Your task to perform on an android device: remove spam from my inbox in the gmail app Image 0: 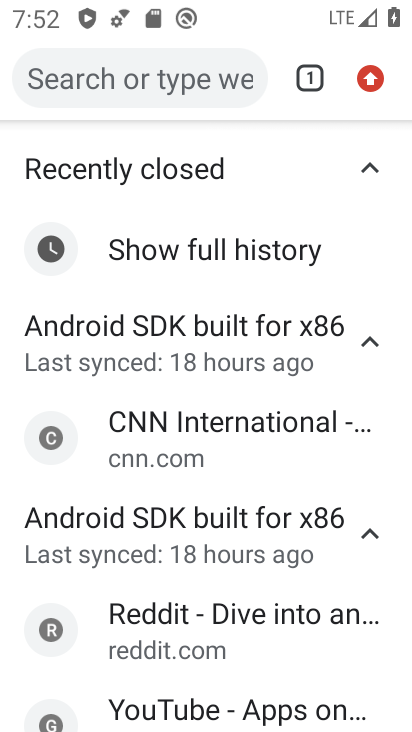
Step 0: press home button
Your task to perform on an android device: remove spam from my inbox in the gmail app Image 1: 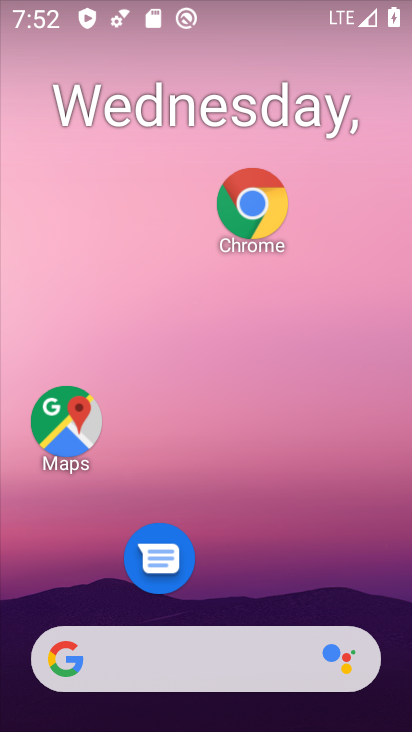
Step 1: drag from (233, 592) to (225, 152)
Your task to perform on an android device: remove spam from my inbox in the gmail app Image 2: 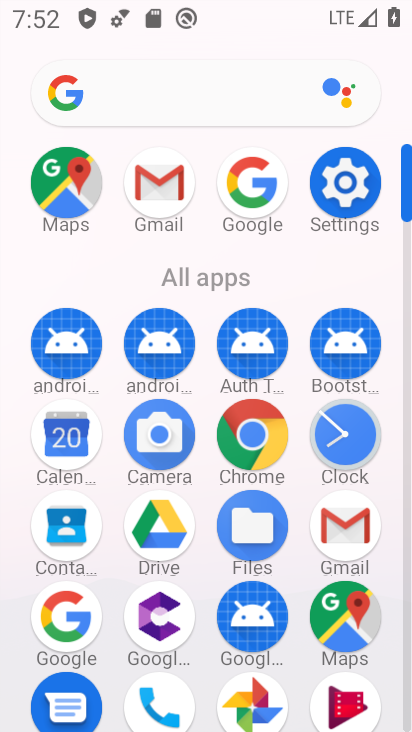
Step 2: click (354, 522)
Your task to perform on an android device: remove spam from my inbox in the gmail app Image 3: 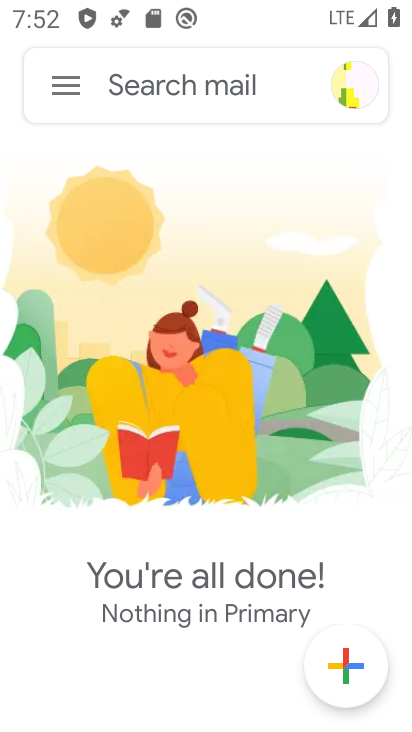
Step 3: click (60, 86)
Your task to perform on an android device: remove spam from my inbox in the gmail app Image 4: 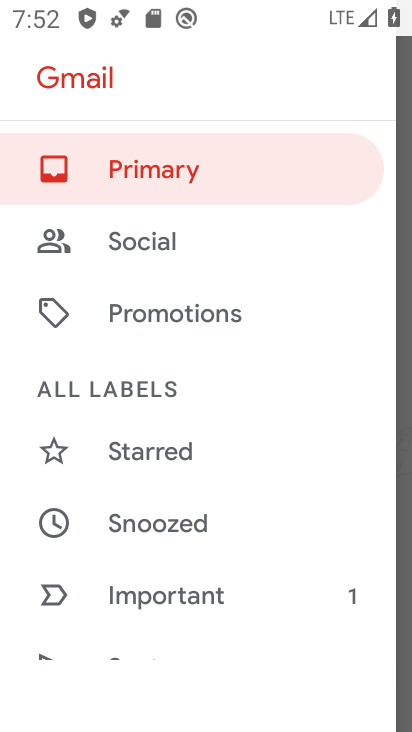
Step 4: drag from (197, 546) to (193, 107)
Your task to perform on an android device: remove spam from my inbox in the gmail app Image 5: 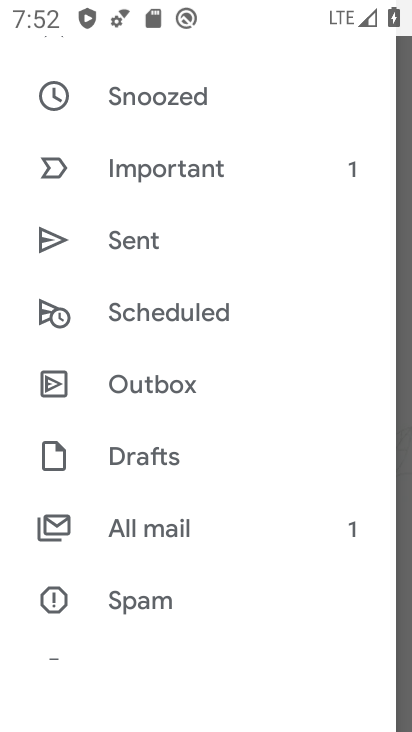
Step 5: drag from (179, 605) to (202, 242)
Your task to perform on an android device: remove spam from my inbox in the gmail app Image 6: 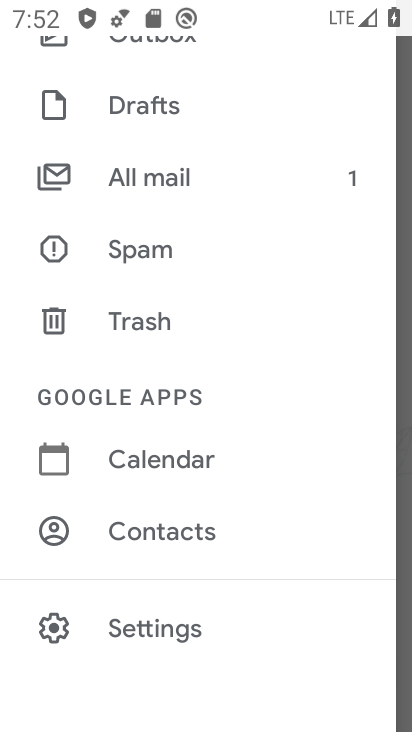
Step 6: click (174, 246)
Your task to perform on an android device: remove spam from my inbox in the gmail app Image 7: 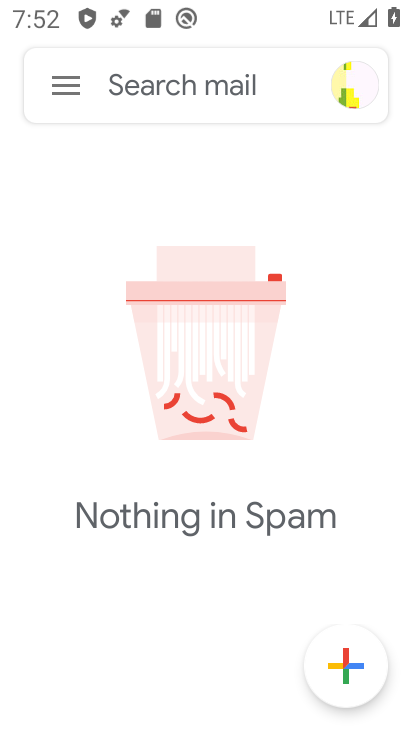
Step 7: task complete